Your task to perform on an android device: Turn on the flashlight Image 0: 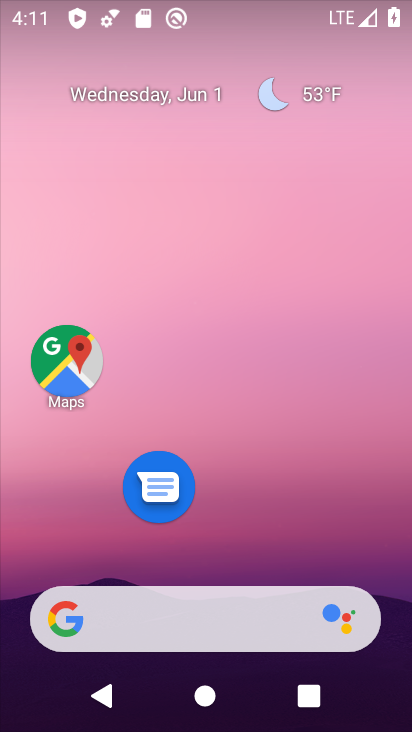
Step 0: drag from (217, 545) to (270, 24)
Your task to perform on an android device: Turn on the flashlight Image 1: 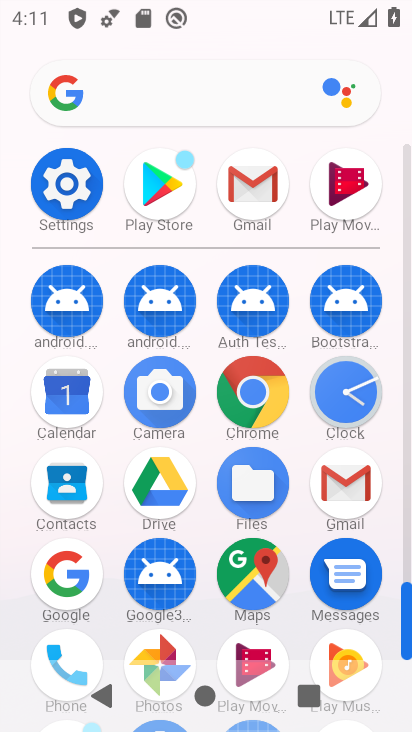
Step 1: click (61, 183)
Your task to perform on an android device: Turn on the flashlight Image 2: 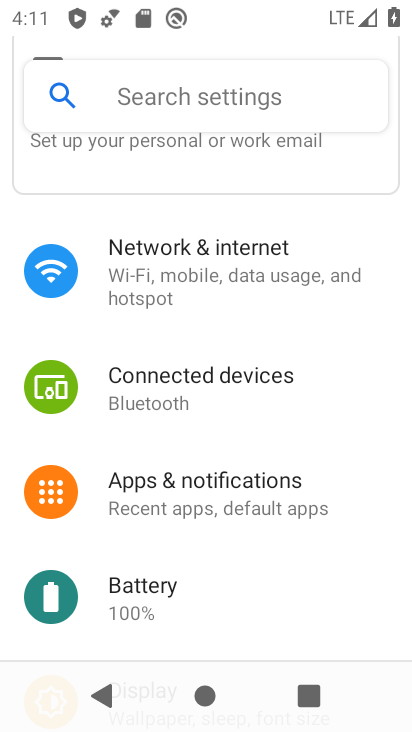
Step 2: click (221, 101)
Your task to perform on an android device: Turn on the flashlight Image 3: 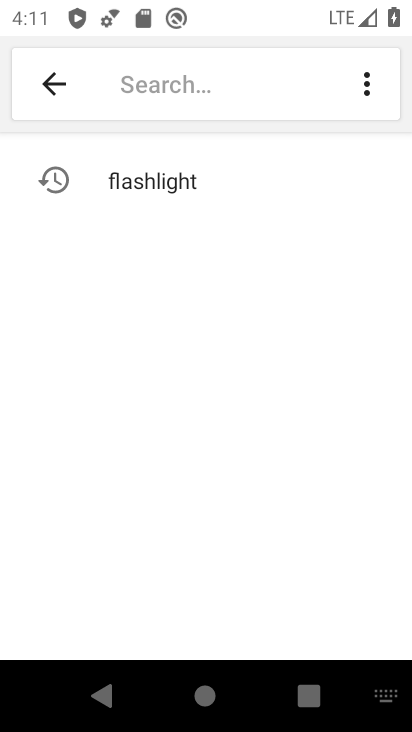
Step 3: type "flashlight"
Your task to perform on an android device: Turn on the flashlight Image 4: 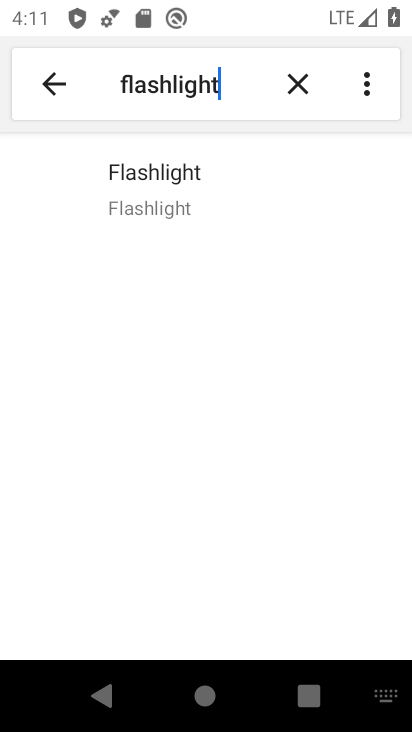
Step 4: click (170, 204)
Your task to perform on an android device: Turn on the flashlight Image 5: 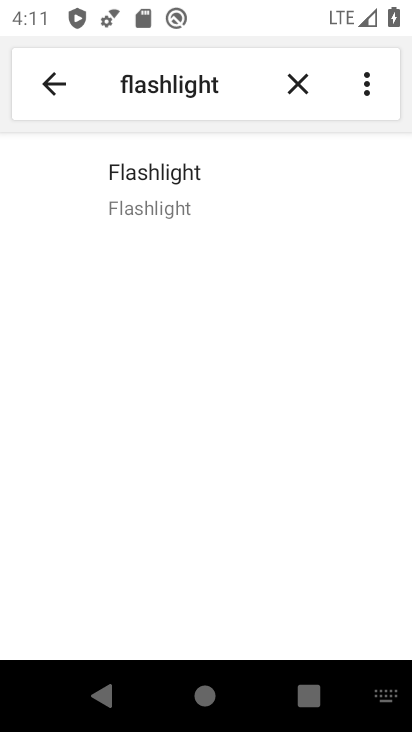
Step 5: click (171, 202)
Your task to perform on an android device: Turn on the flashlight Image 6: 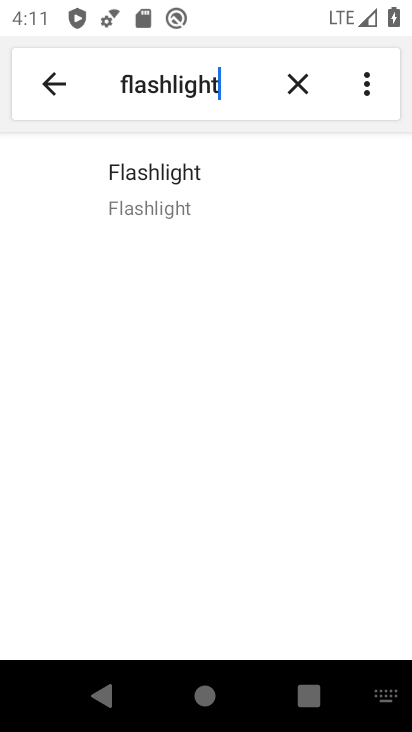
Step 6: click (173, 202)
Your task to perform on an android device: Turn on the flashlight Image 7: 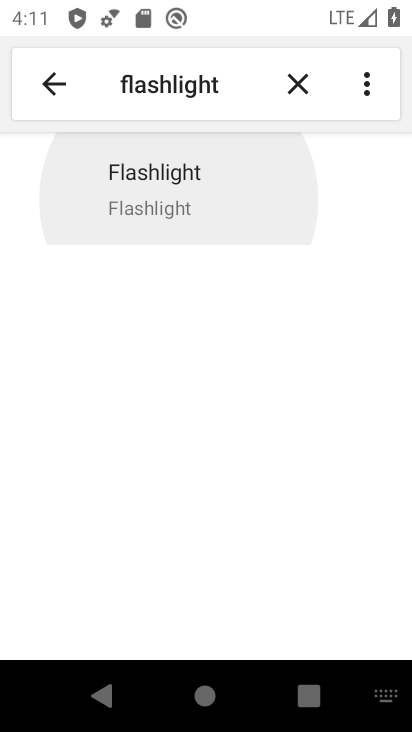
Step 7: click (173, 202)
Your task to perform on an android device: Turn on the flashlight Image 8: 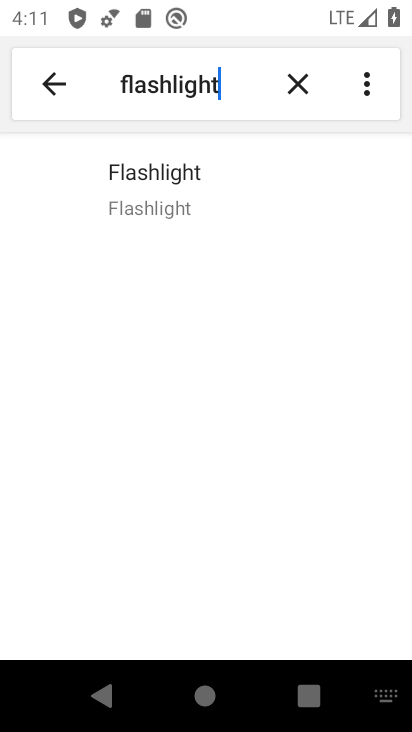
Step 8: task complete